Your task to perform on an android device: turn pop-ups on in chrome Image 0: 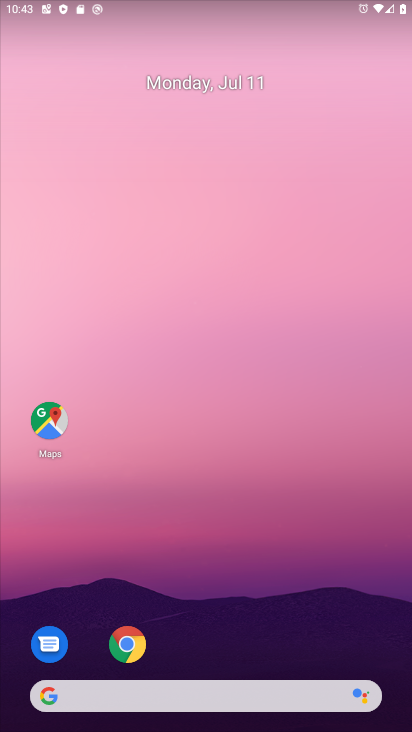
Step 0: click (127, 646)
Your task to perform on an android device: turn pop-ups on in chrome Image 1: 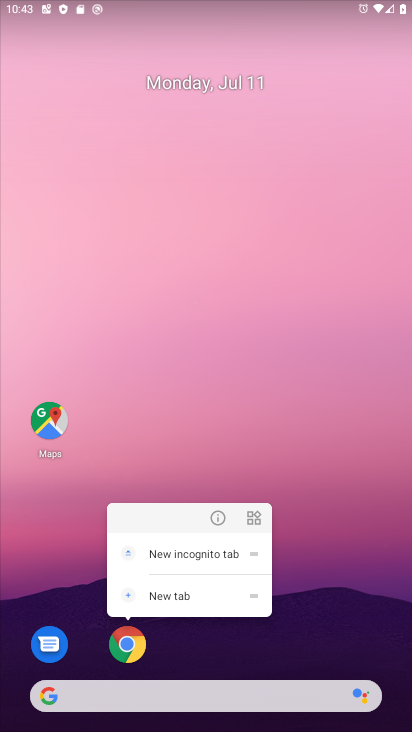
Step 1: click (221, 514)
Your task to perform on an android device: turn pop-ups on in chrome Image 2: 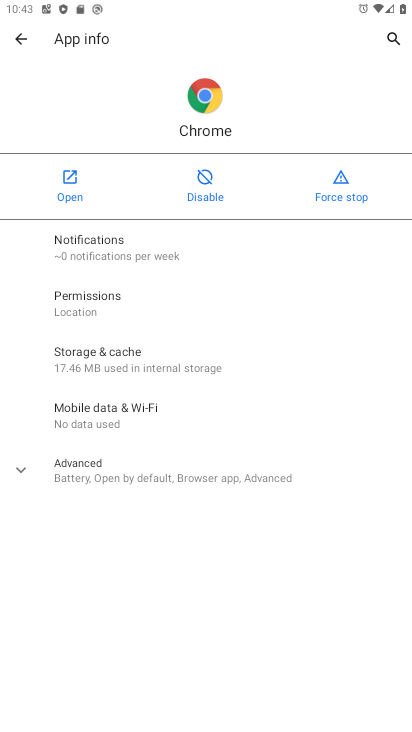
Step 2: click (30, 466)
Your task to perform on an android device: turn pop-ups on in chrome Image 3: 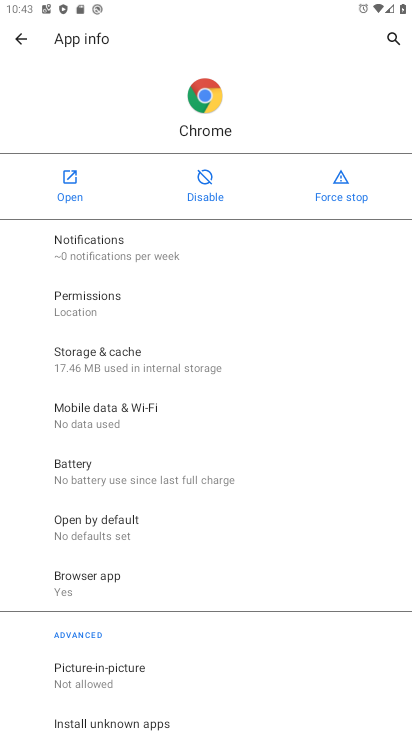
Step 3: click (141, 674)
Your task to perform on an android device: turn pop-ups on in chrome Image 4: 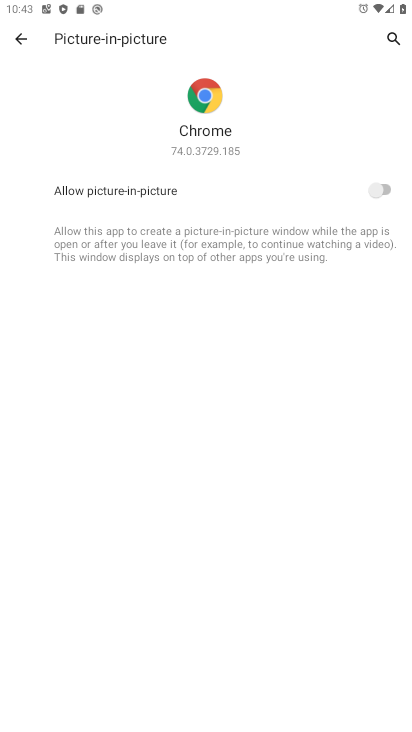
Step 4: click (381, 188)
Your task to perform on an android device: turn pop-ups on in chrome Image 5: 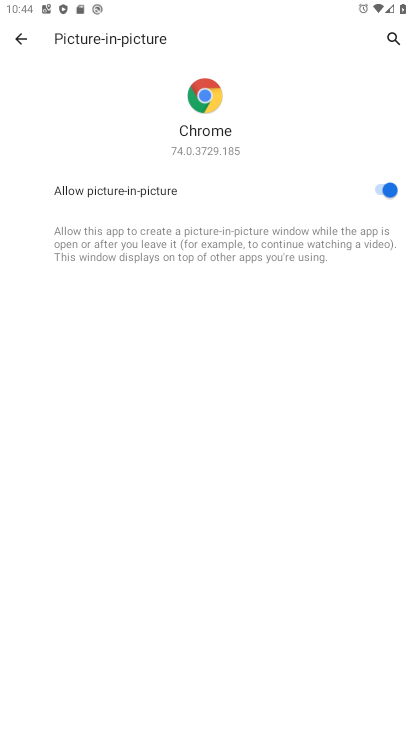
Step 5: task complete